Your task to perform on an android device: Open Google Chrome Image 0: 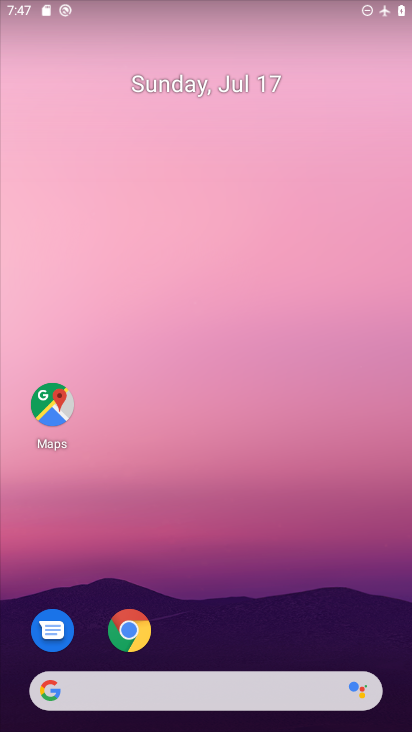
Step 0: drag from (371, 624) to (243, 27)
Your task to perform on an android device: Open Google Chrome Image 1: 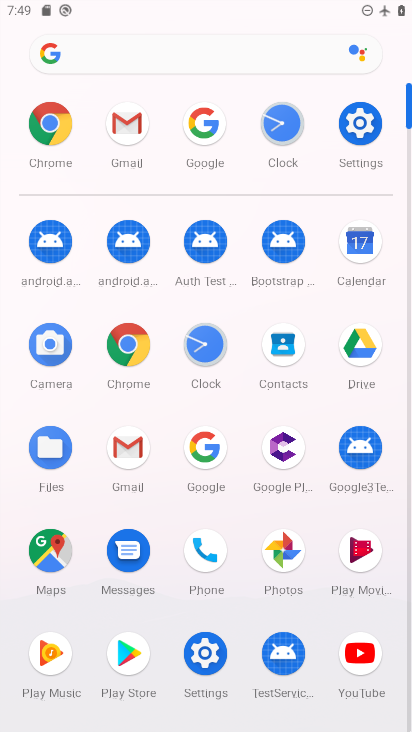
Step 1: click (126, 354)
Your task to perform on an android device: Open Google Chrome Image 2: 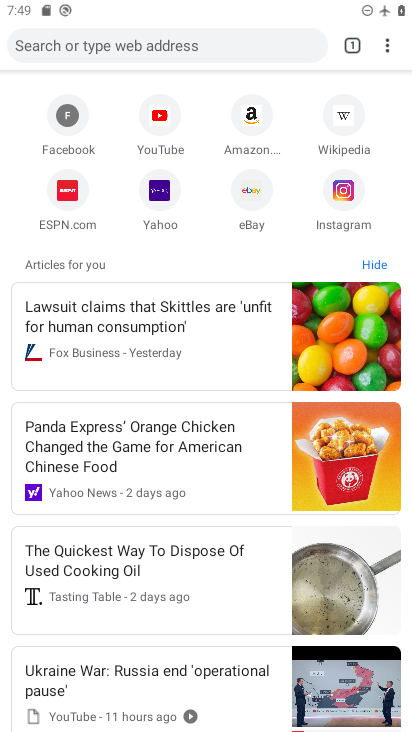
Step 2: task complete